Your task to perform on an android device: Search for sushi restaurants on Maps Image 0: 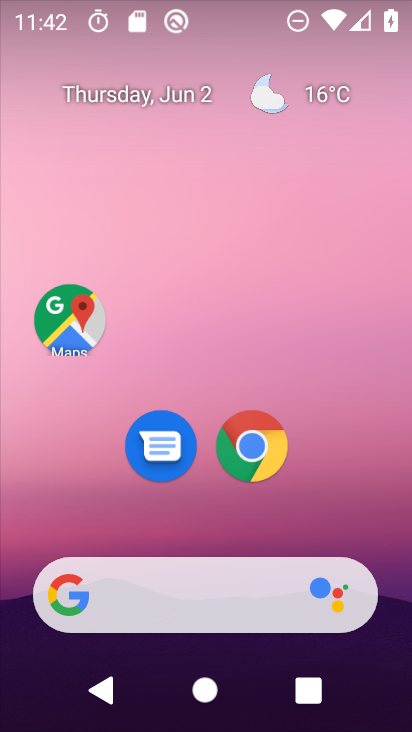
Step 0: drag from (365, 522) to (372, 141)
Your task to perform on an android device: Search for sushi restaurants on Maps Image 1: 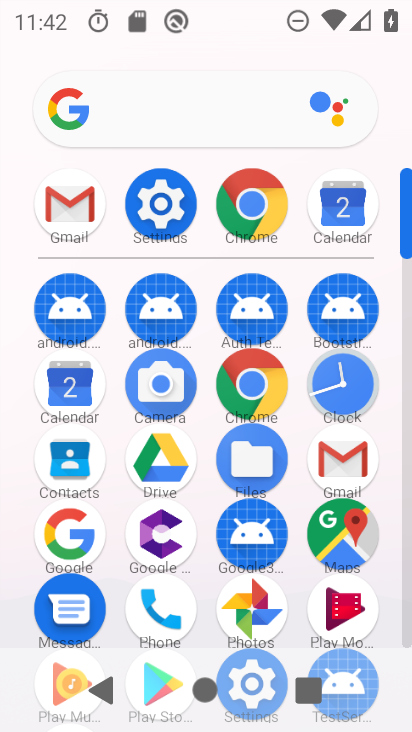
Step 1: click (358, 527)
Your task to perform on an android device: Search for sushi restaurants on Maps Image 2: 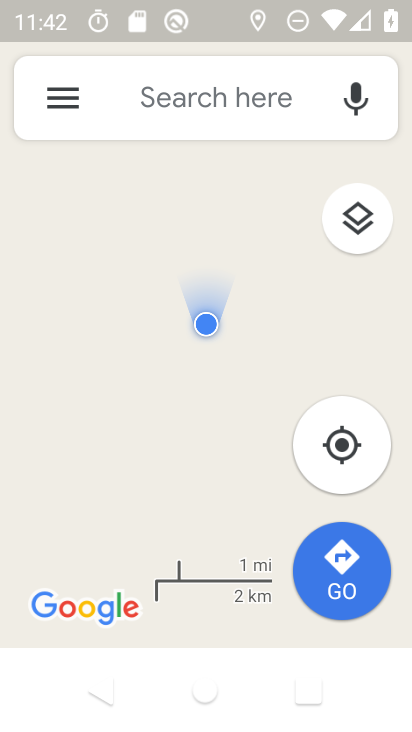
Step 2: click (219, 120)
Your task to perform on an android device: Search for sushi restaurants on Maps Image 3: 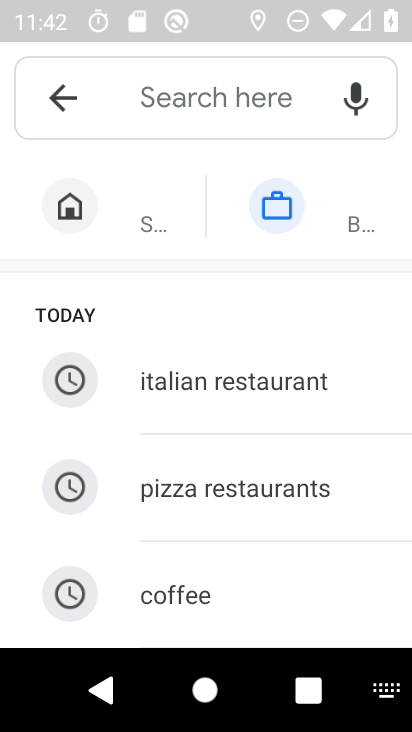
Step 3: type "sushi restaurants"
Your task to perform on an android device: Search for sushi restaurants on Maps Image 4: 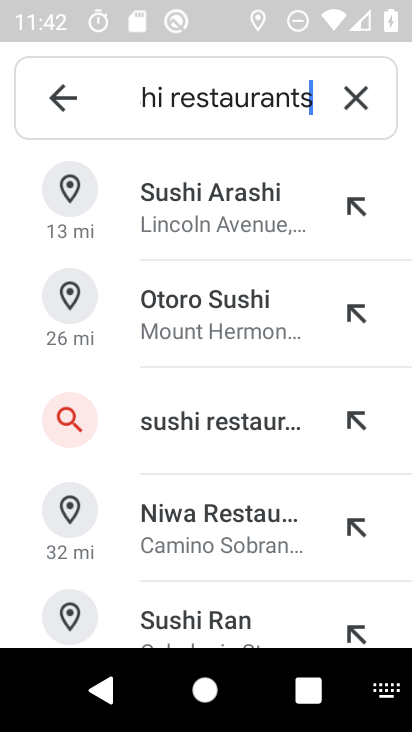
Step 4: click (216, 427)
Your task to perform on an android device: Search for sushi restaurants on Maps Image 5: 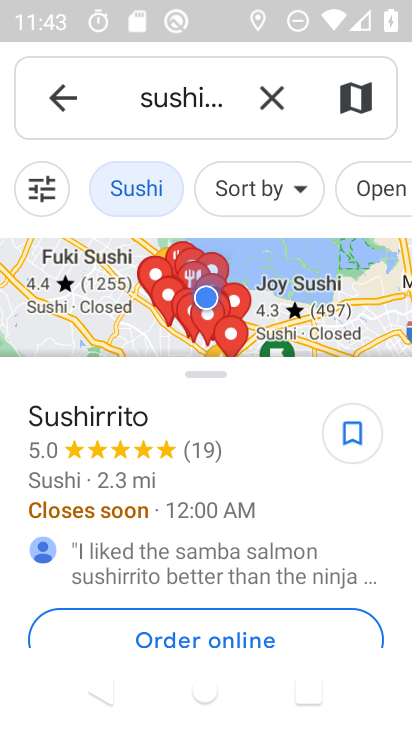
Step 5: task complete